Your task to perform on an android device: turn off javascript in the chrome app Image 0: 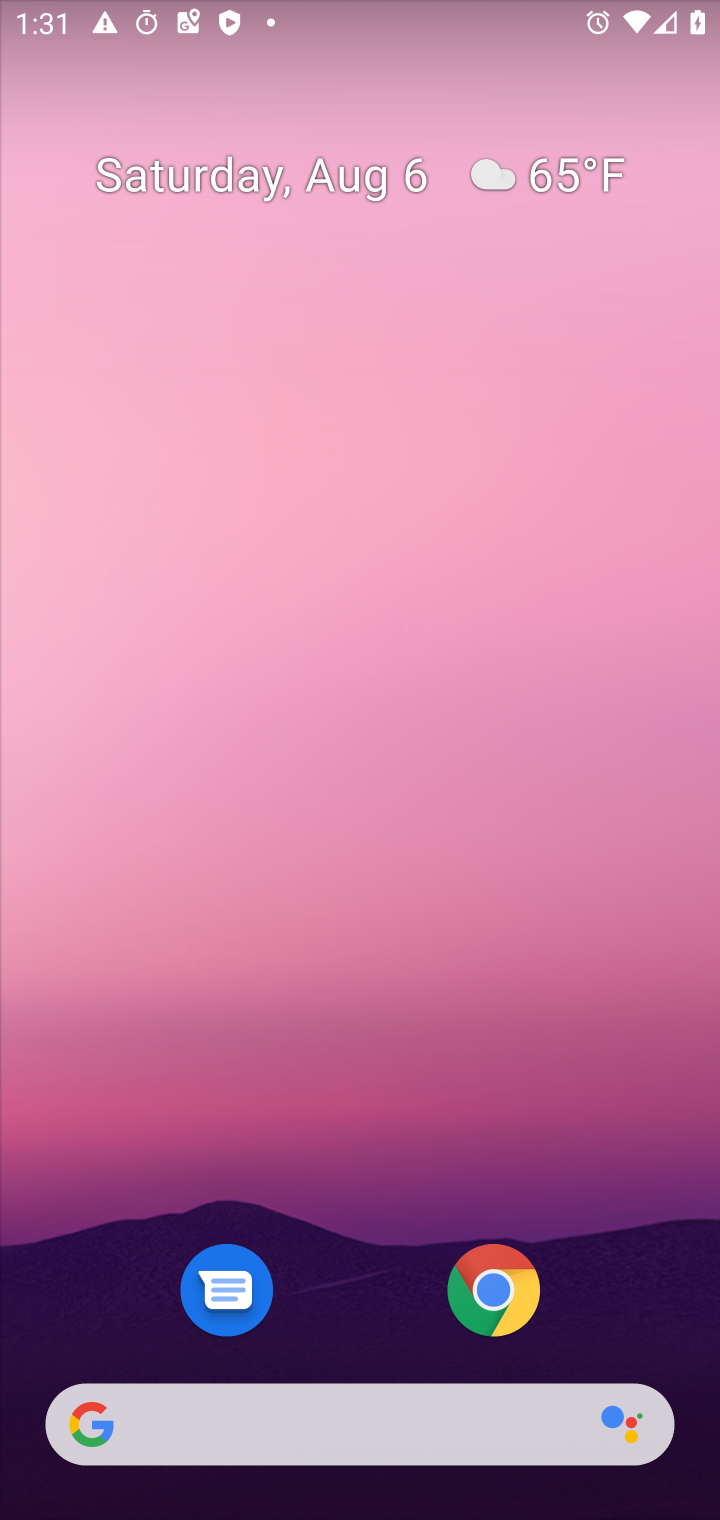
Step 0: press home button
Your task to perform on an android device: turn off javascript in the chrome app Image 1: 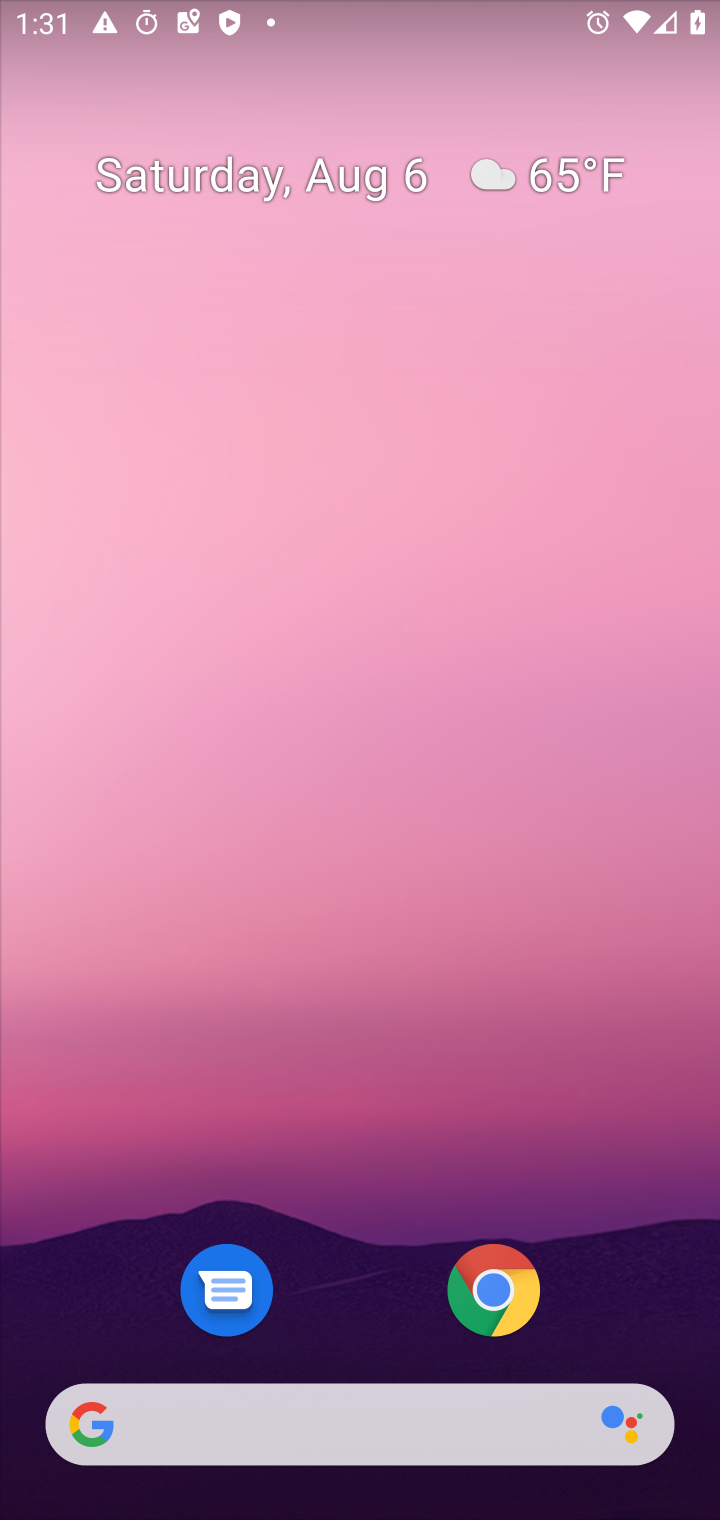
Step 1: press home button
Your task to perform on an android device: turn off javascript in the chrome app Image 2: 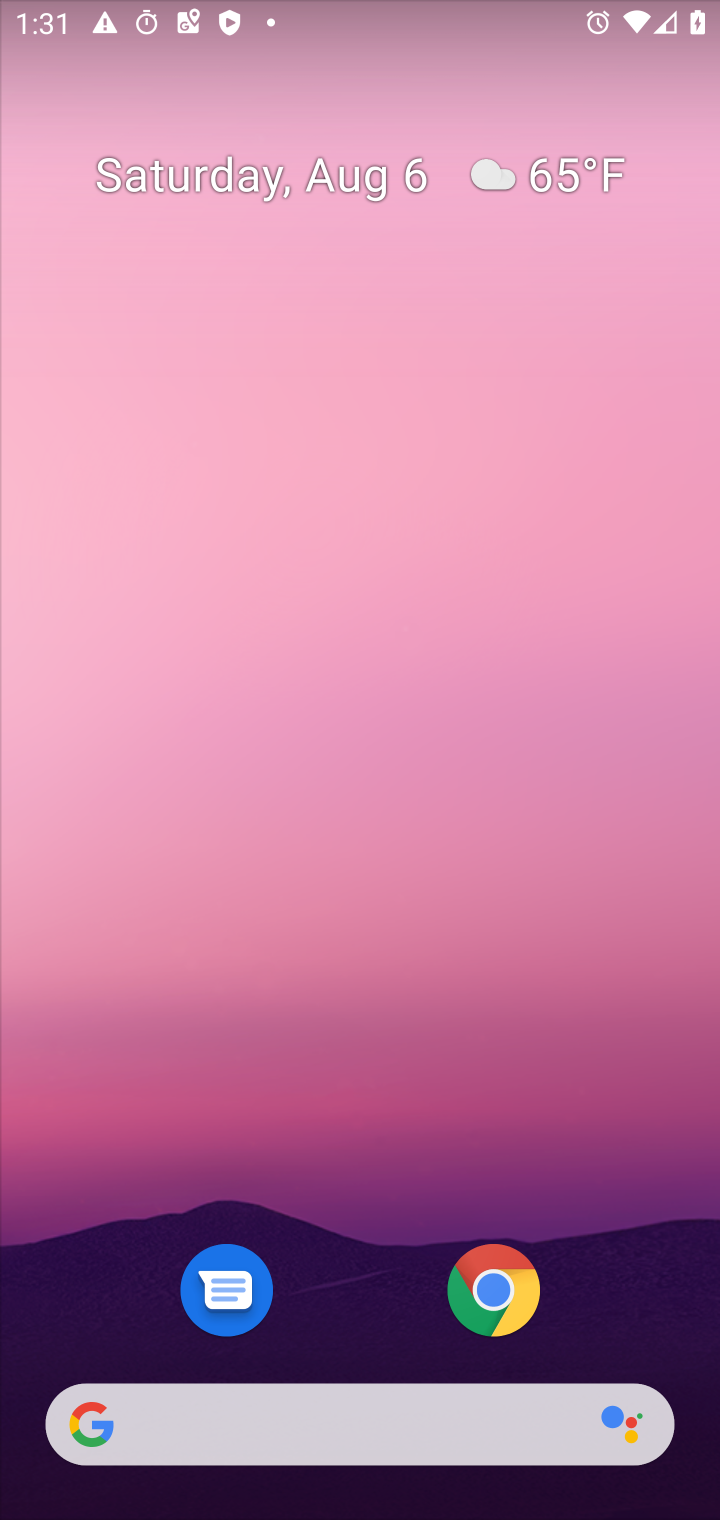
Step 2: click (495, 1276)
Your task to perform on an android device: turn off javascript in the chrome app Image 3: 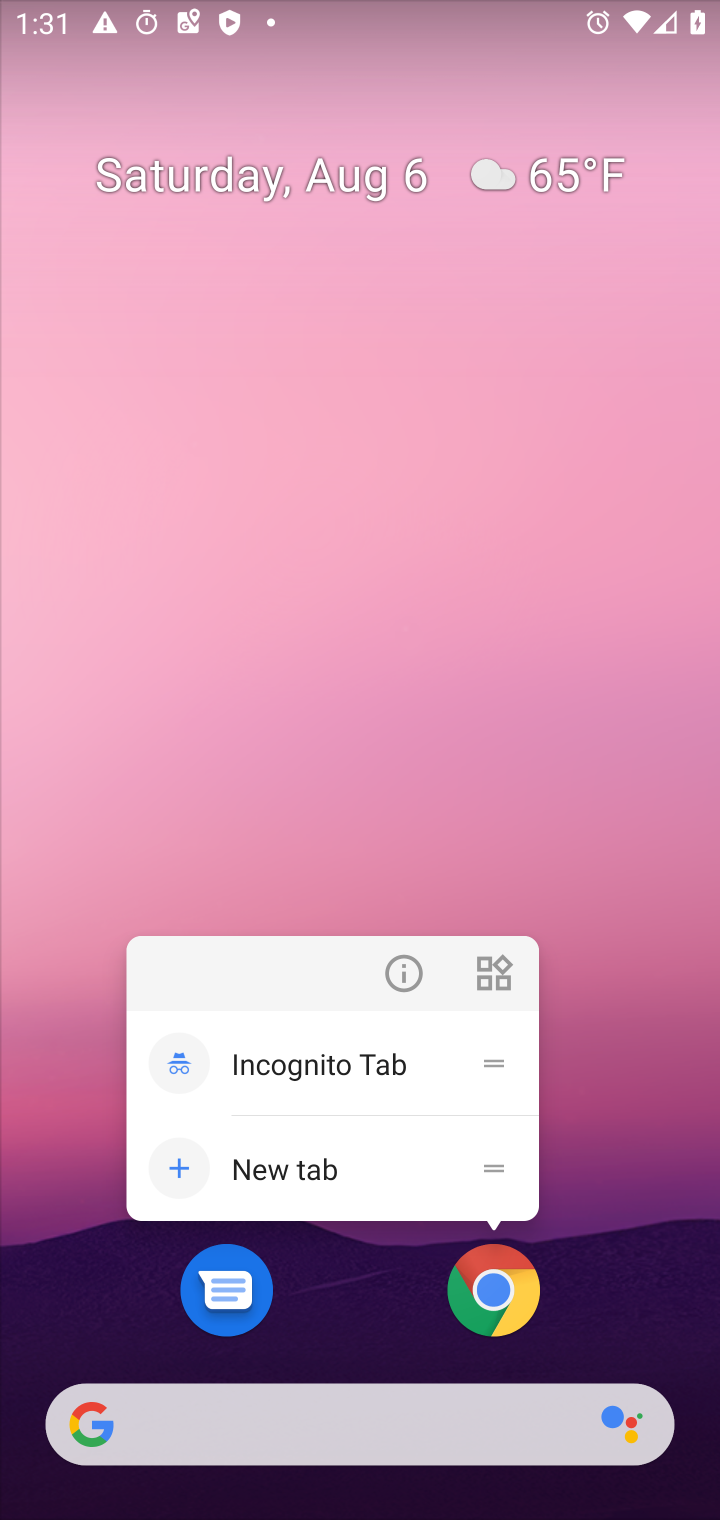
Step 3: click (500, 1285)
Your task to perform on an android device: turn off javascript in the chrome app Image 4: 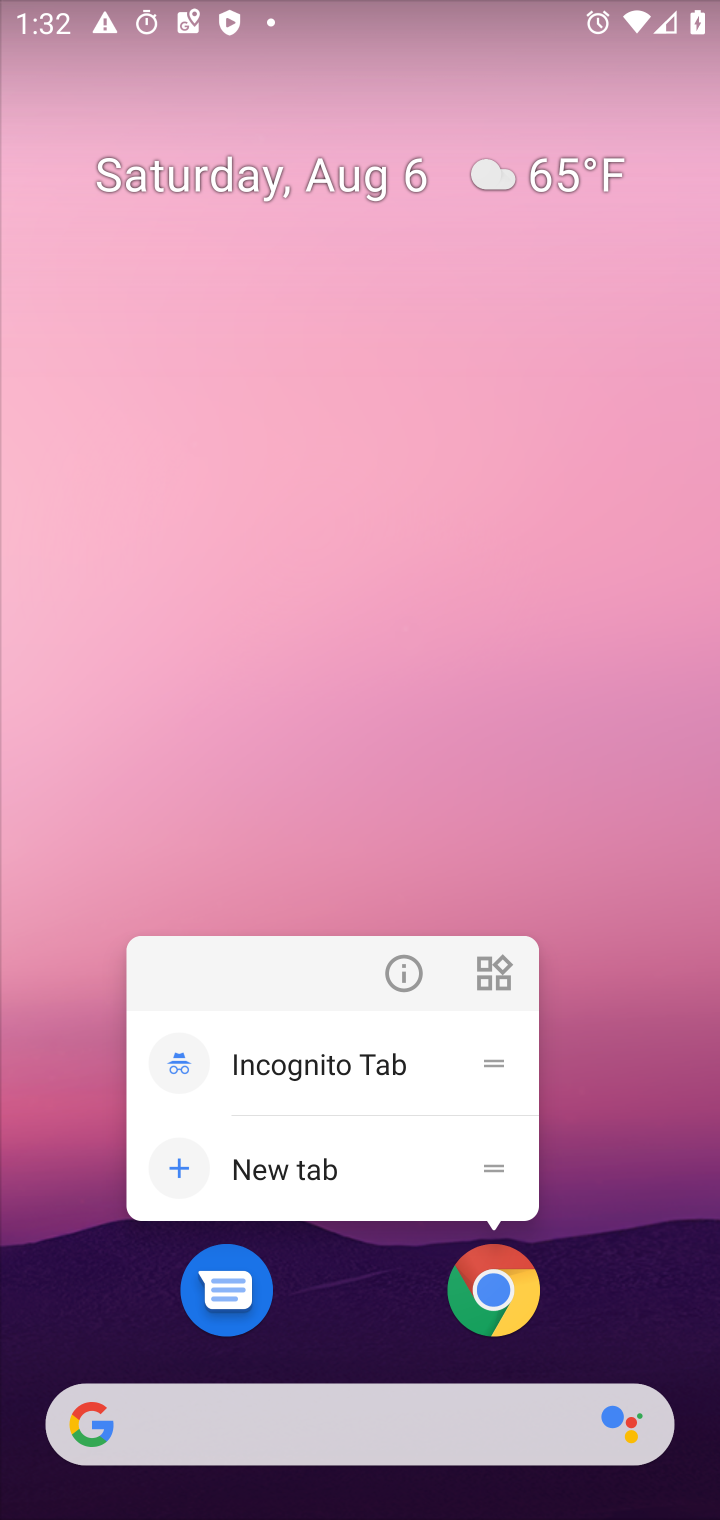
Step 4: click (479, 1265)
Your task to perform on an android device: turn off javascript in the chrome app Image 5: 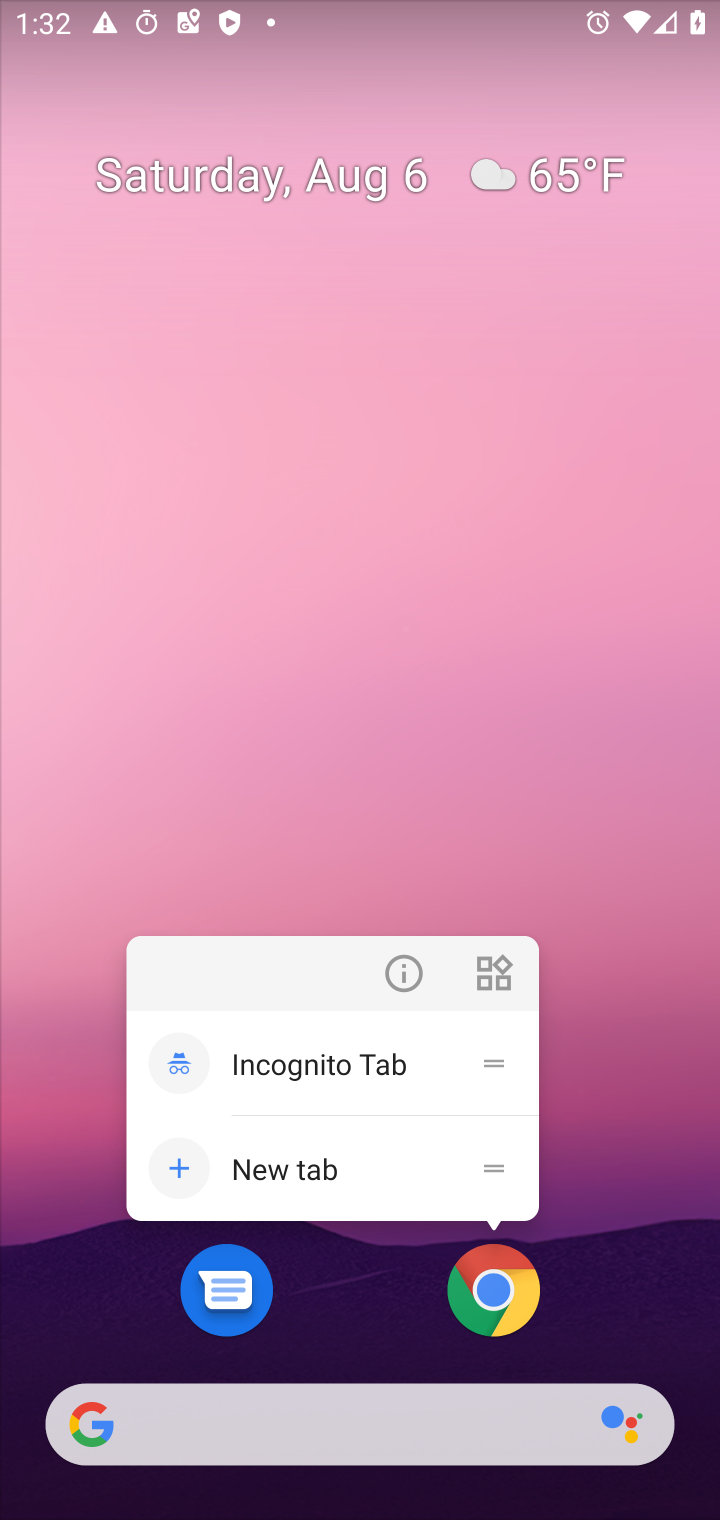
Step 5: click (483, 1277)
Your task to perform on an android device: turn off javascript in the chrome app Image 6: 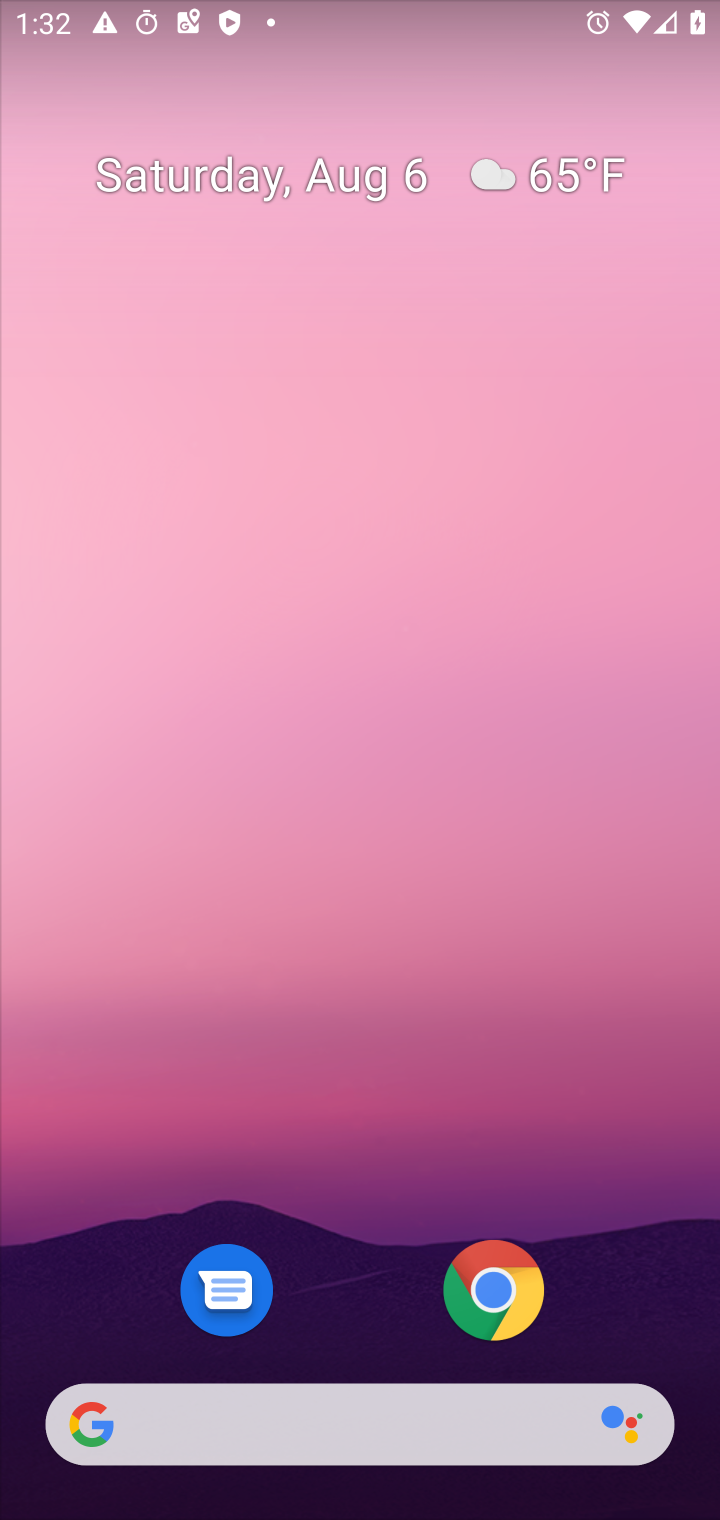
Step 6: drag from (564, 1338) to (640, 133)
Your task to perform on an android device: turn off javascript in the chrome app Image 7: 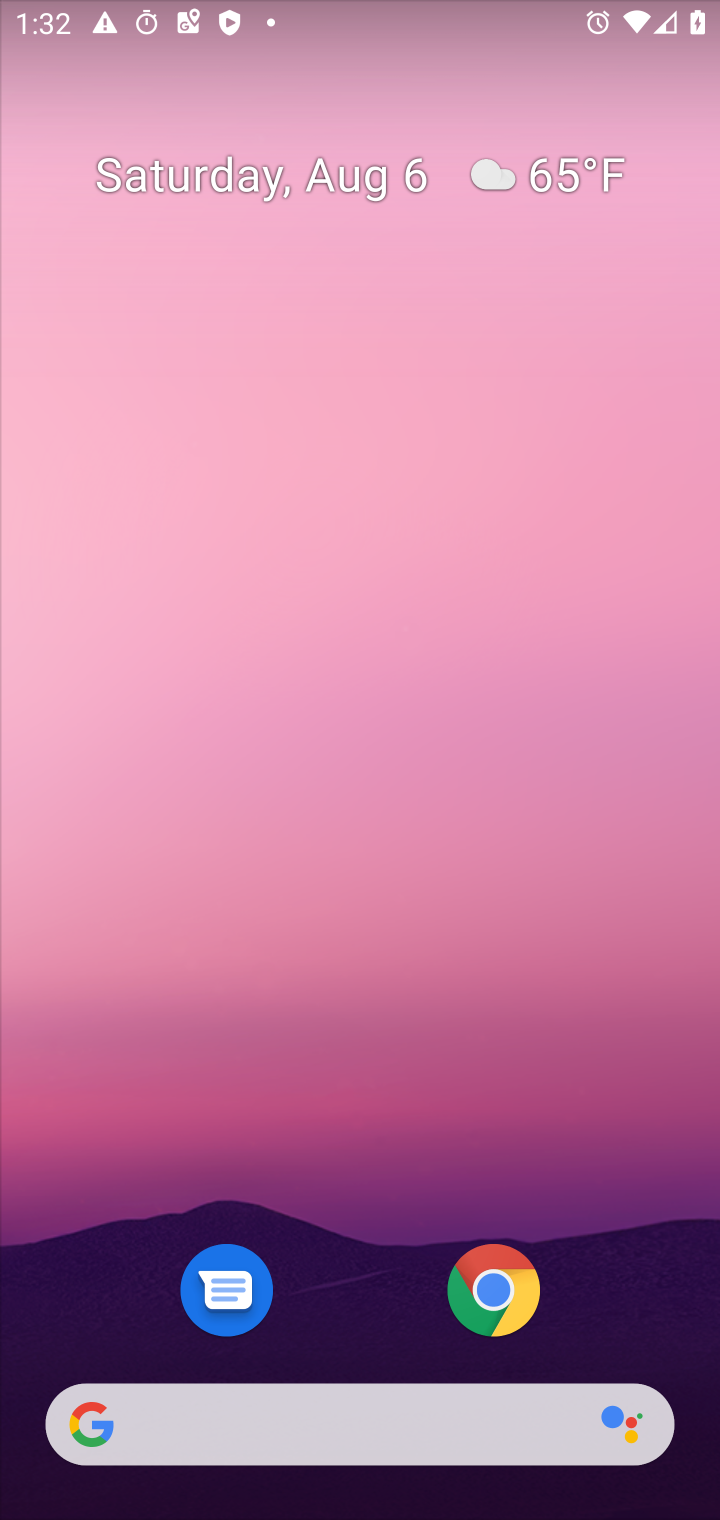
Step 7: drag from (621, 993) to (628, 167)
Your task to perform on an android device: turn off javascript in the chrome app Image 8: 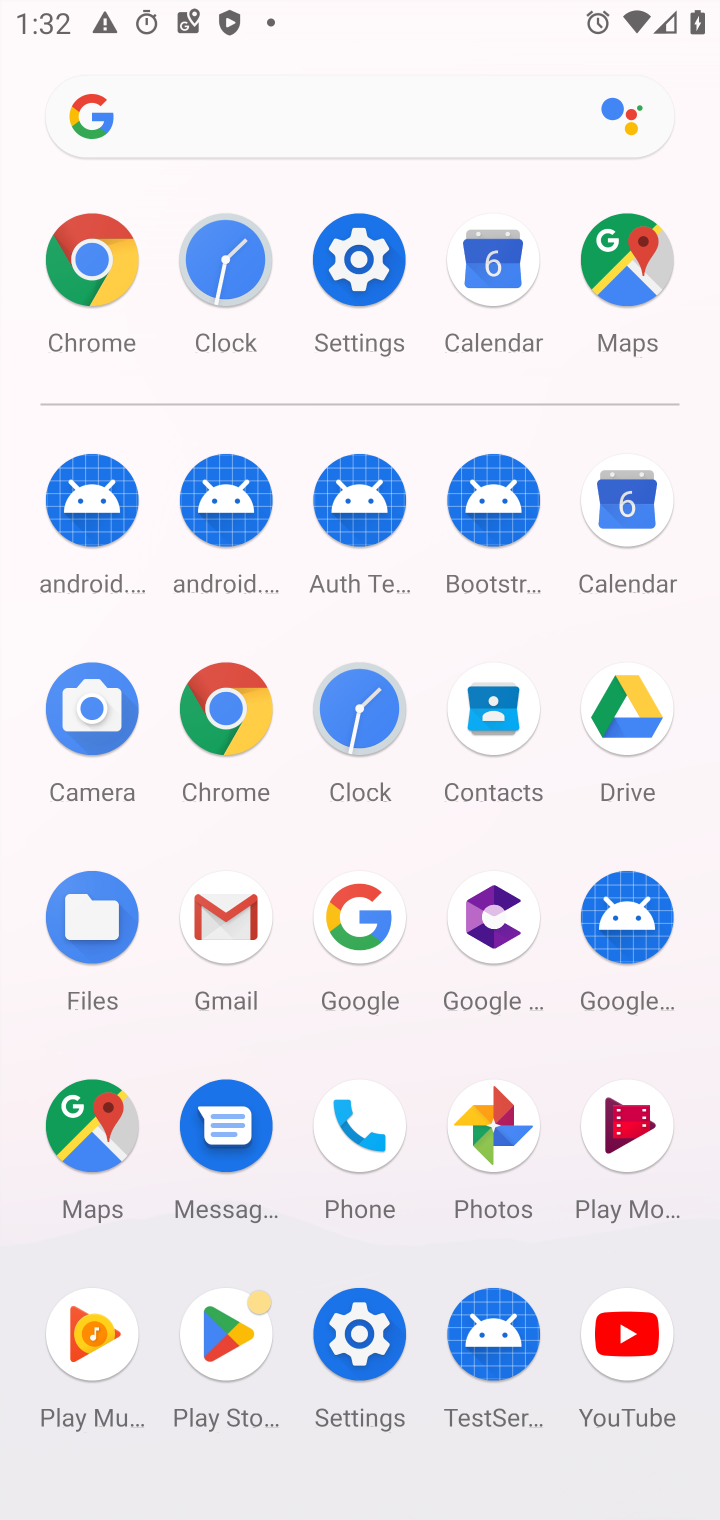
Step 8: click (83, 251)
Your task to perform on an android device: turn off javascript in the chrome app Image 9: 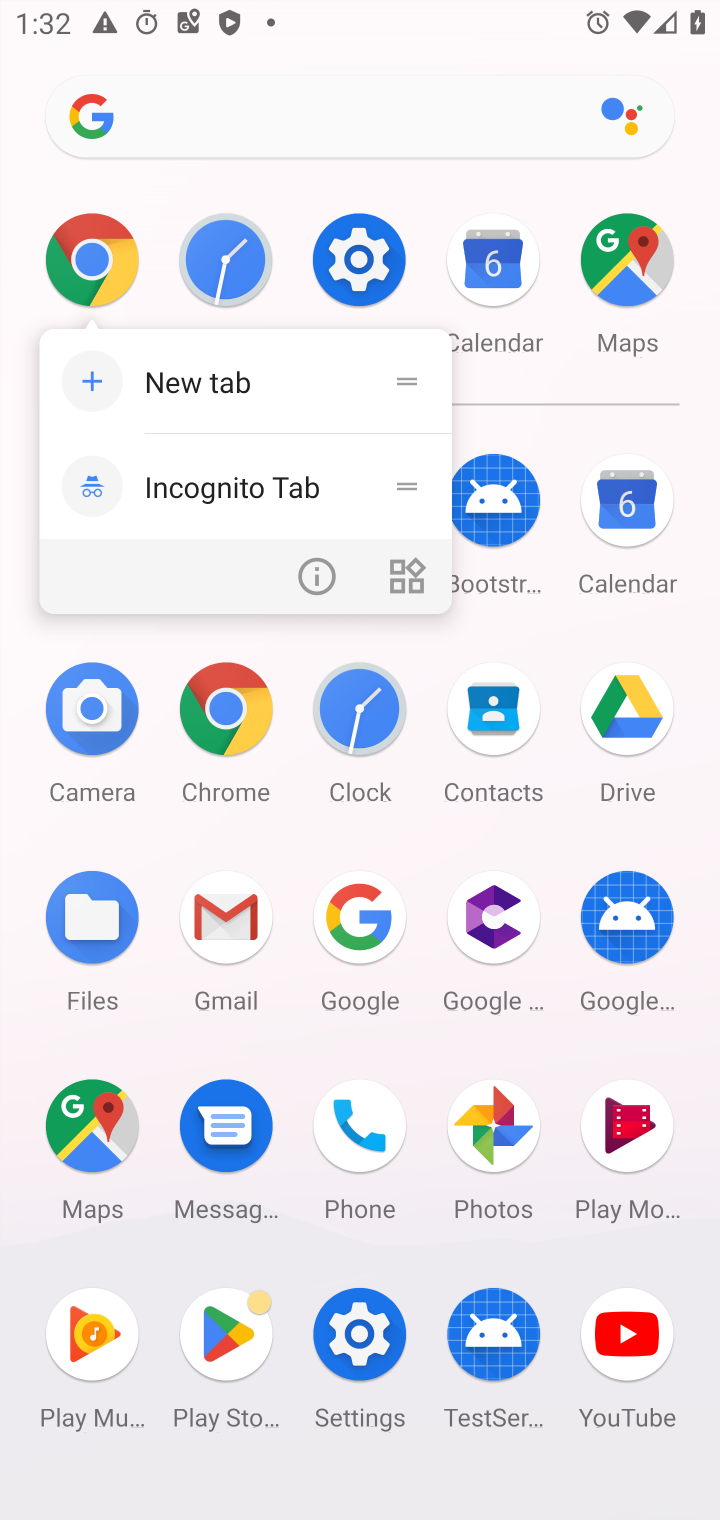
Step 9: click (92, 256)
Your task to perform on an android device: turn off javascript in the chrome app Image 10: 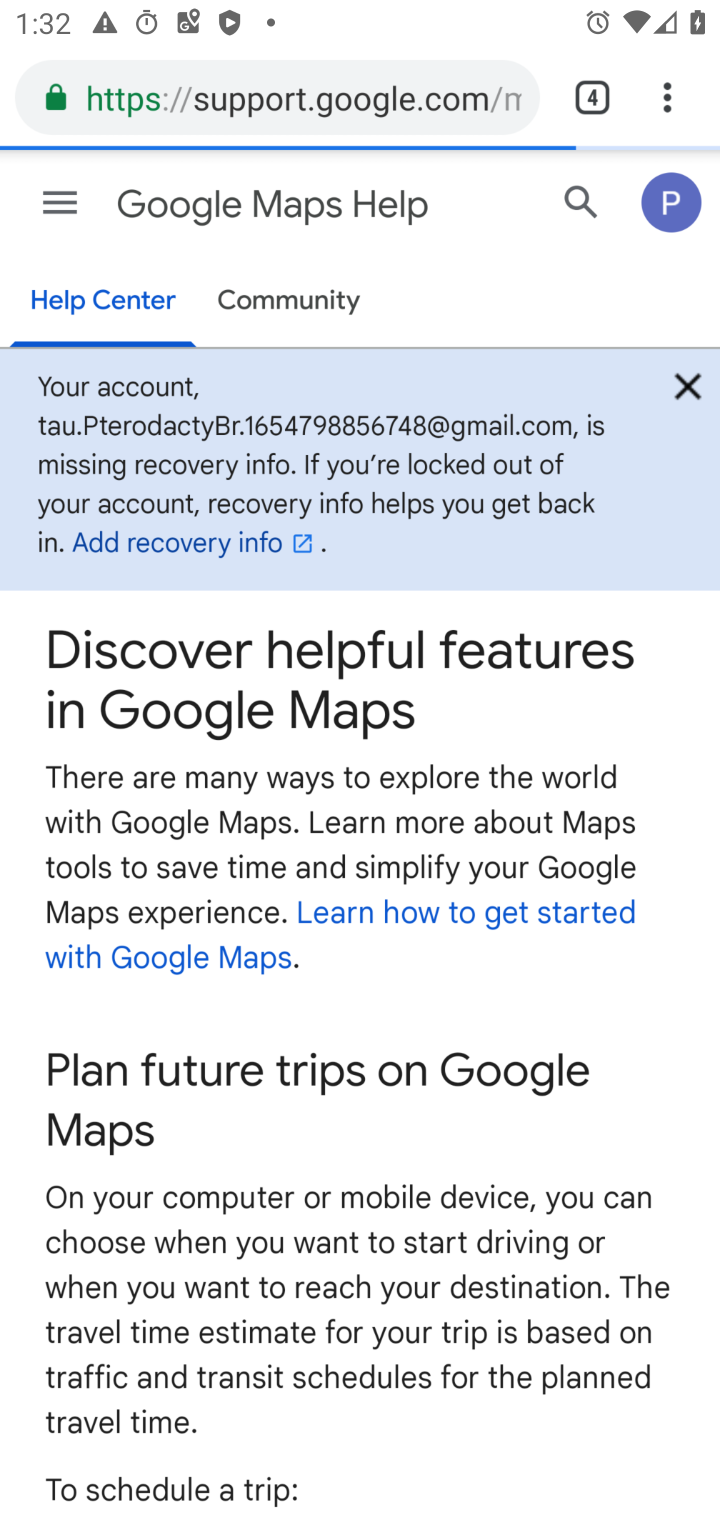
Step 10: click (235, 697)
Your task to perform on an android device: turn off javascript in the chrome app Image 11: 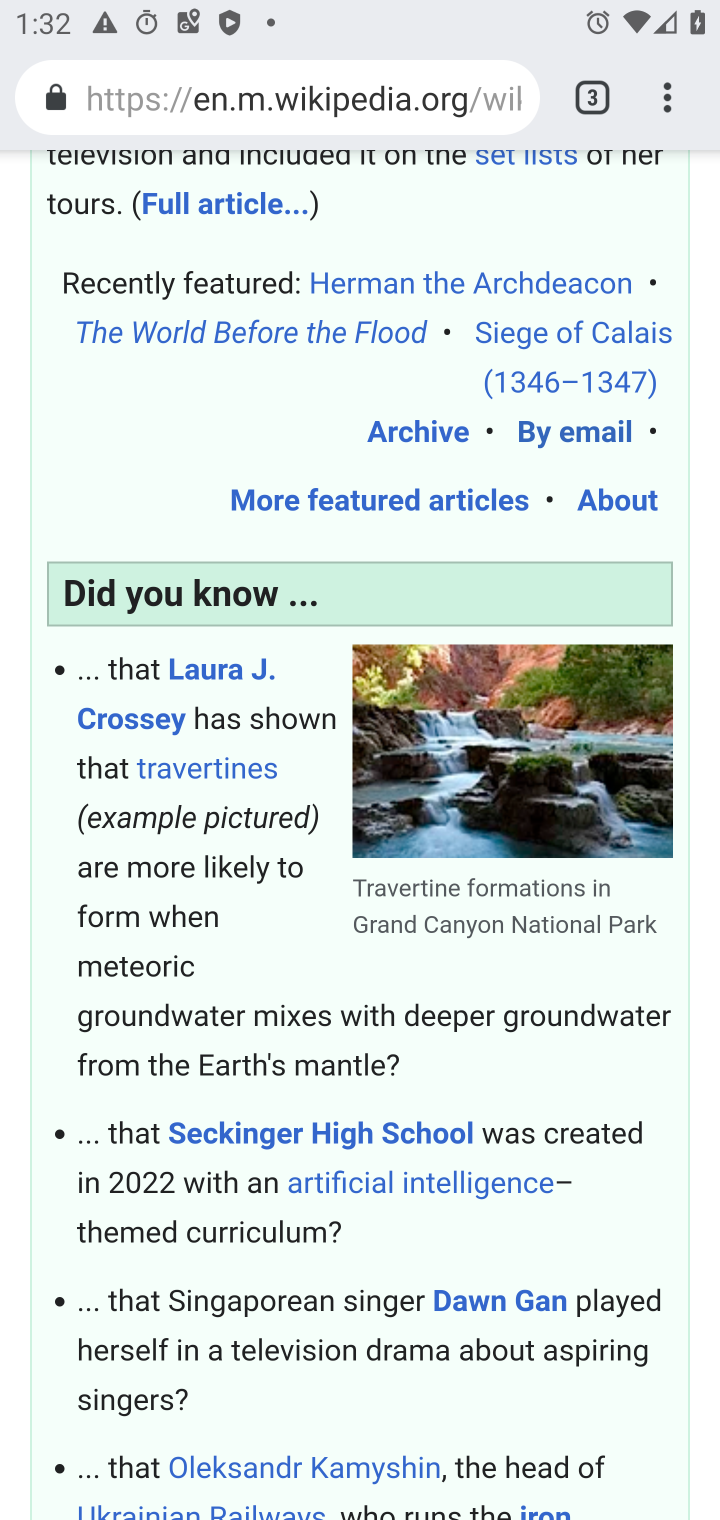
Step 11: click (584, 101)
Your task to perform on an android device: turn off javascript in the chrome app Image 12: 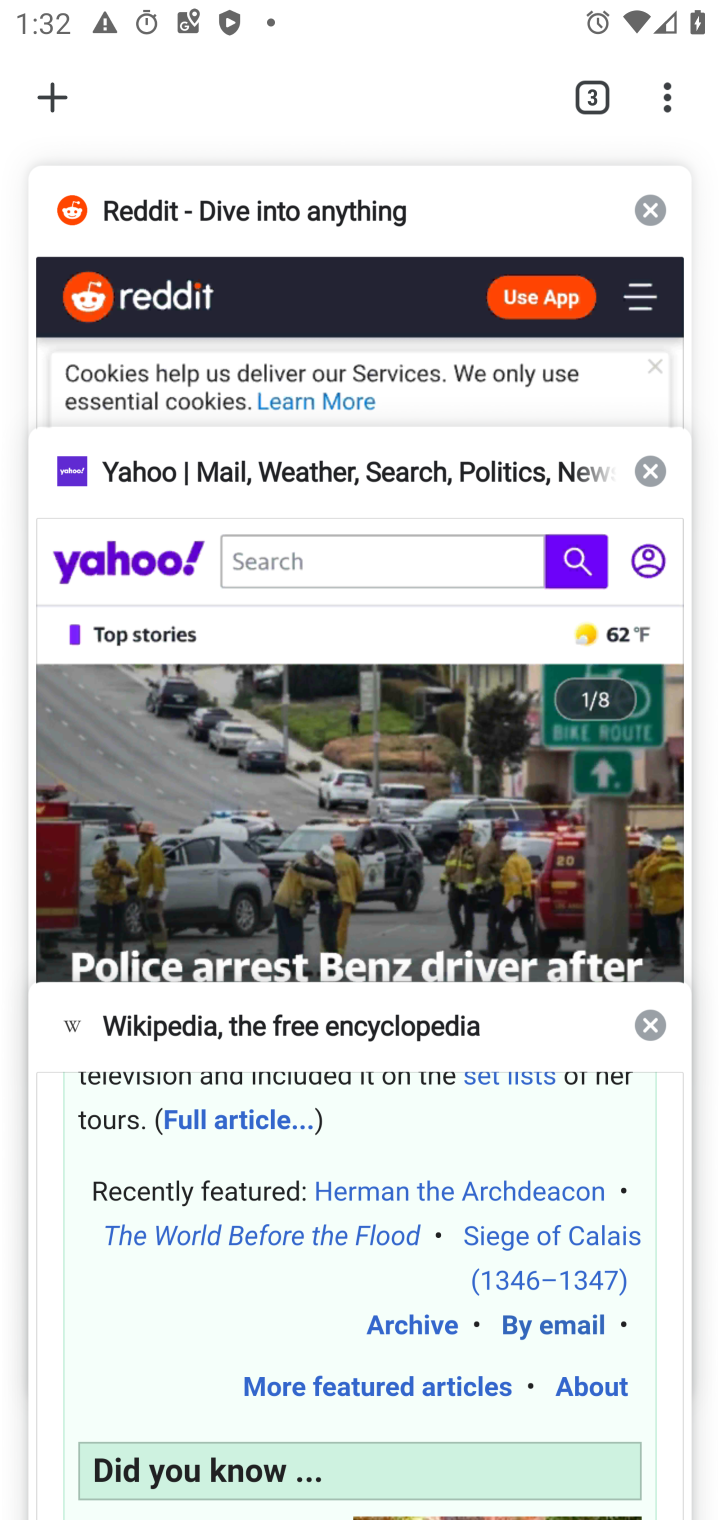
Step 12: click (57, 86)
Your task to perform on an android device: turn off javascript in the chrome app Image 13: 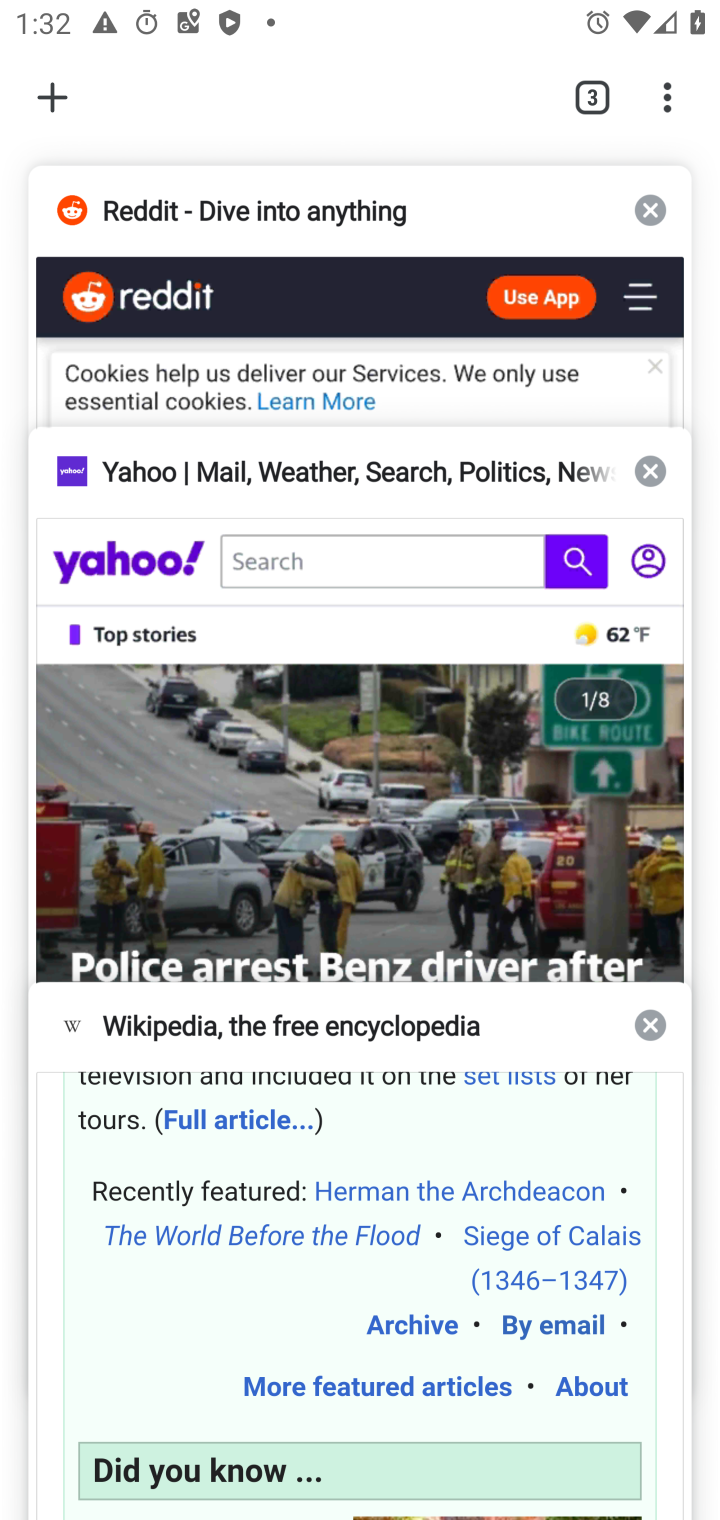
Step 13: click (667, 96)
Your task to perform on an android device: turn off javascript in the chrome app Image 14: 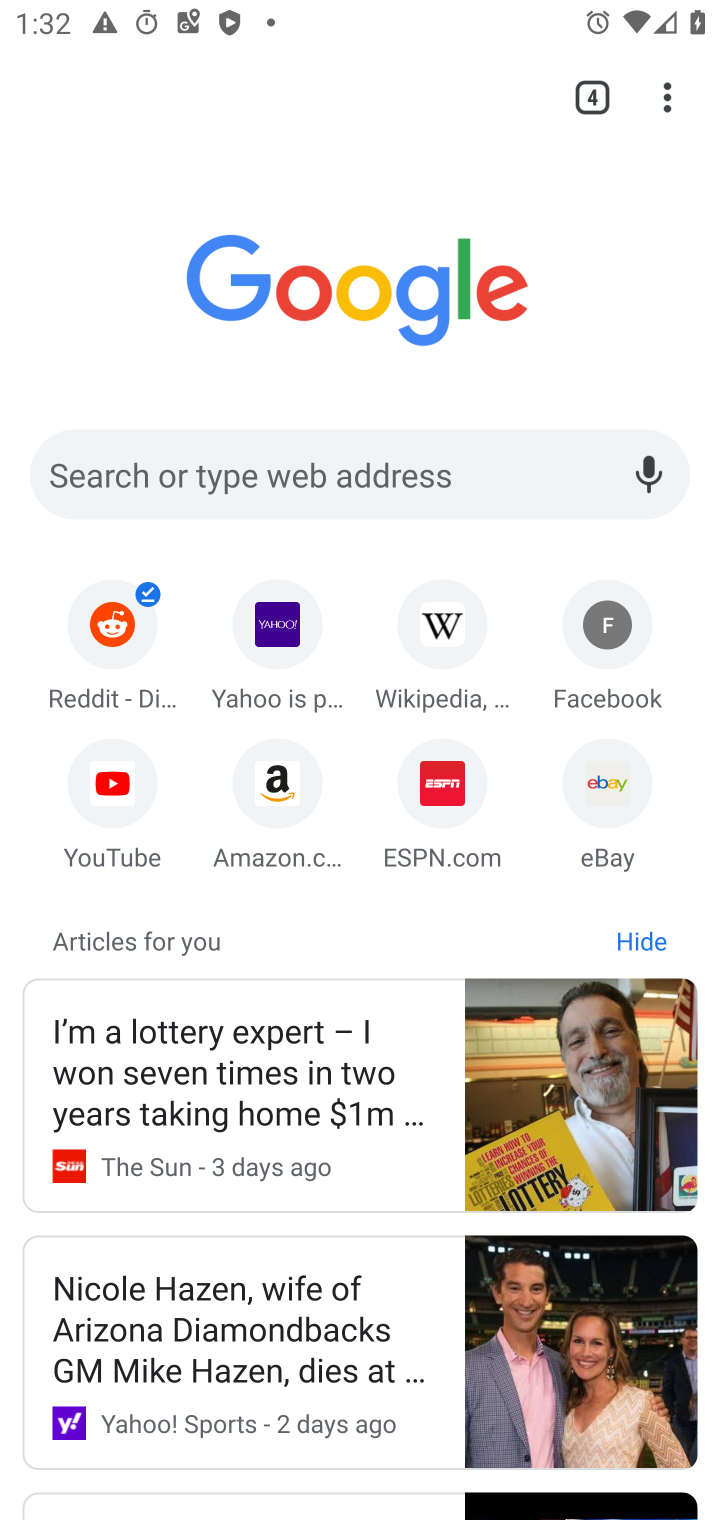
Step 14: click (673, 92)
Your task to perform on an android device: turn off javascript in the chrome app Image 15: 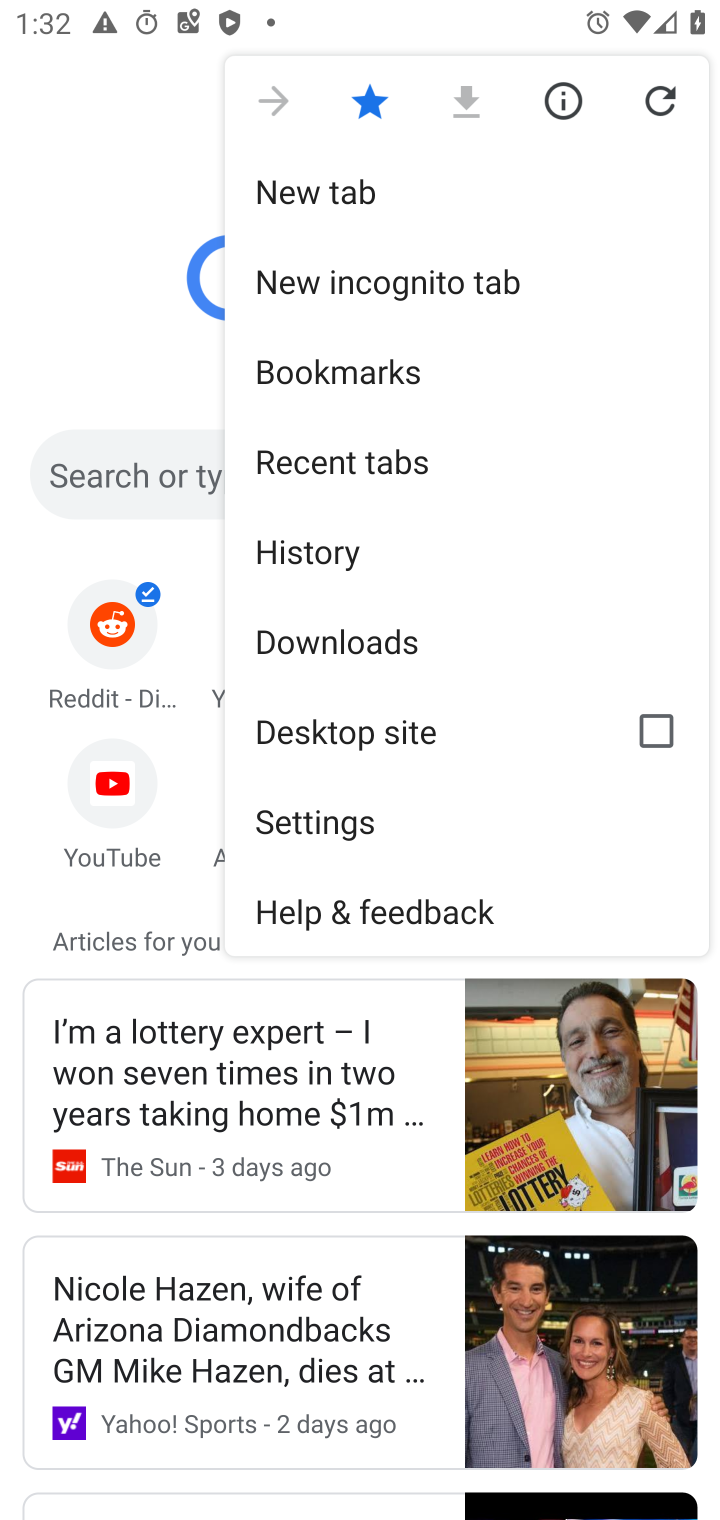
Step 15: click (418, 818)
Your task to perform on an android device: turn off javascript in the chrome app Image 16: 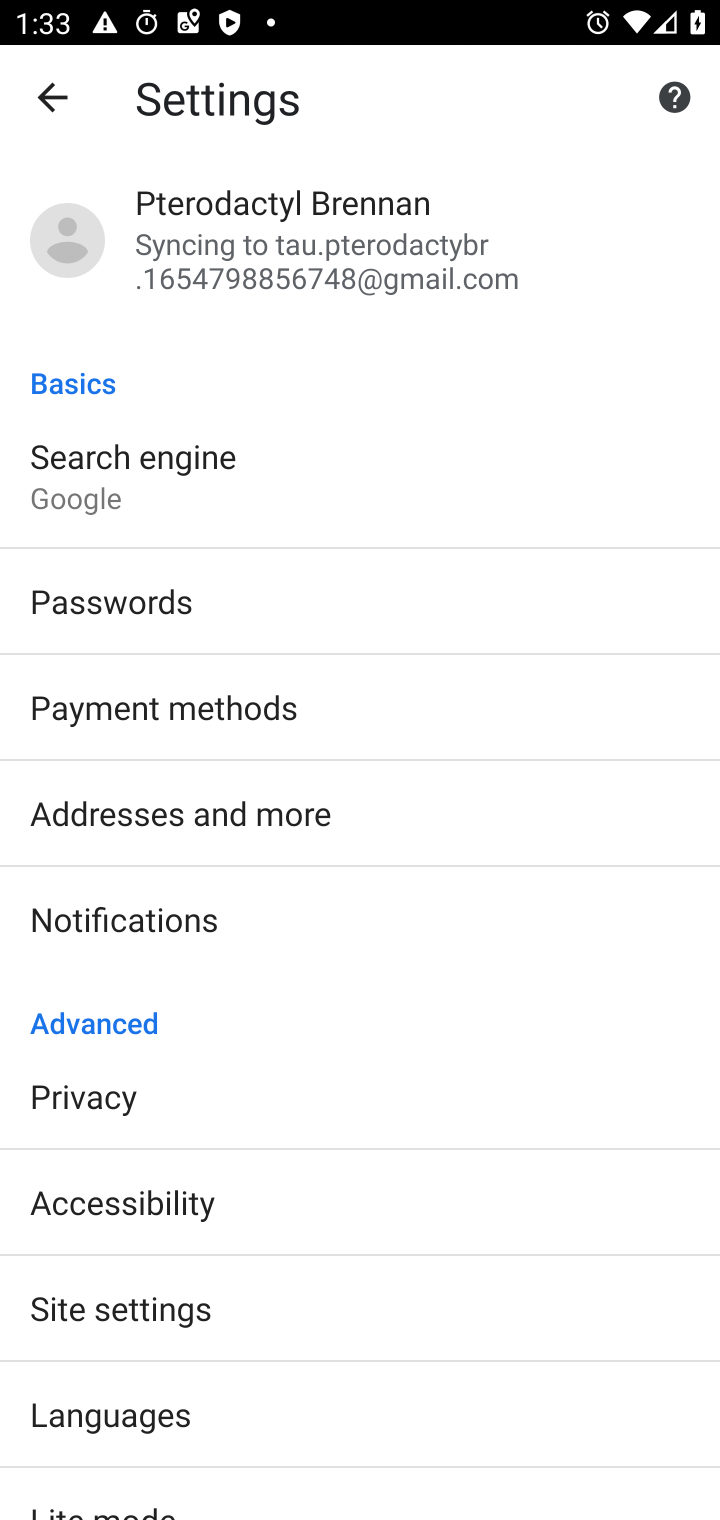
Step 16: click (230, 1296)
Your task to perform on an android device: turn off javascript in the chrome app Image 17: 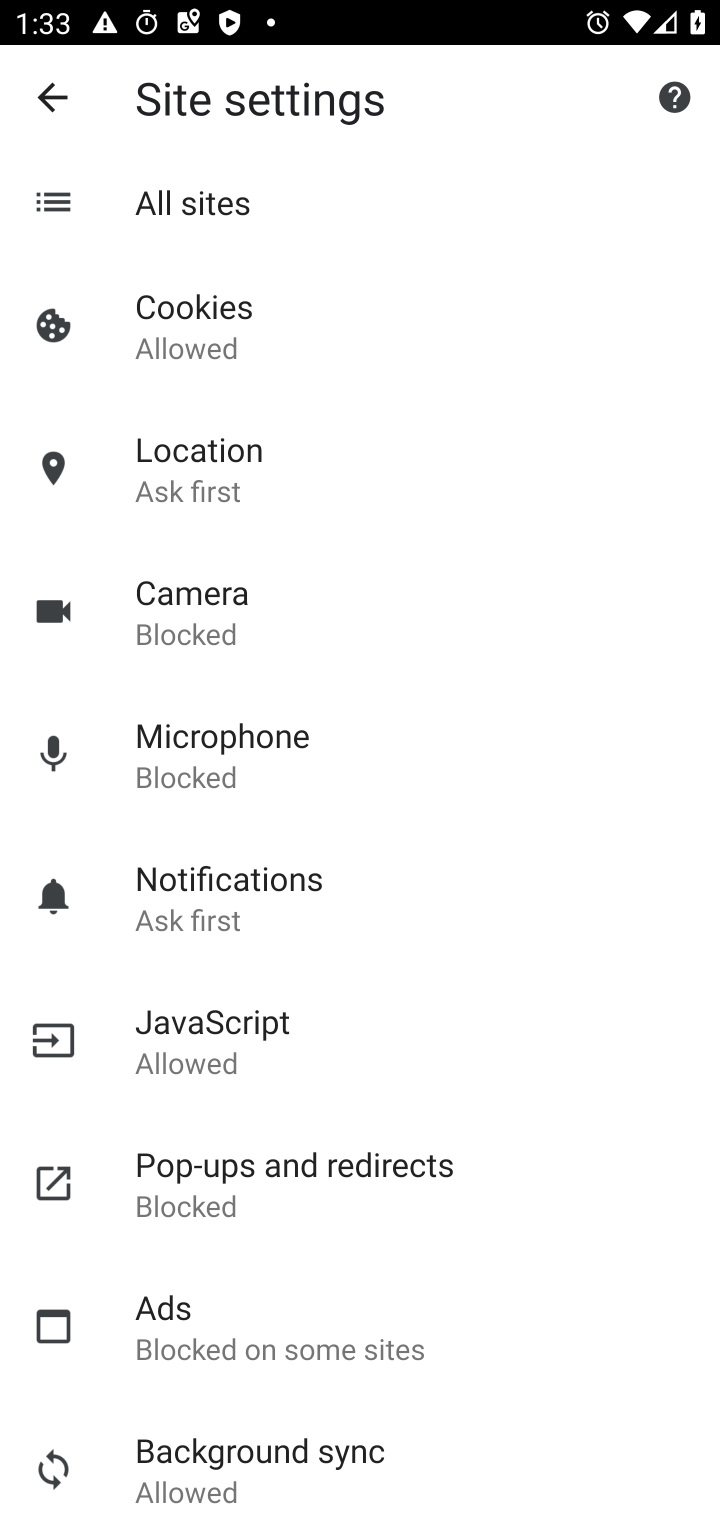
Step 17: click (269, 1025)
Your task to perform on an android device: turn off javascript in the chrome app Image 18: 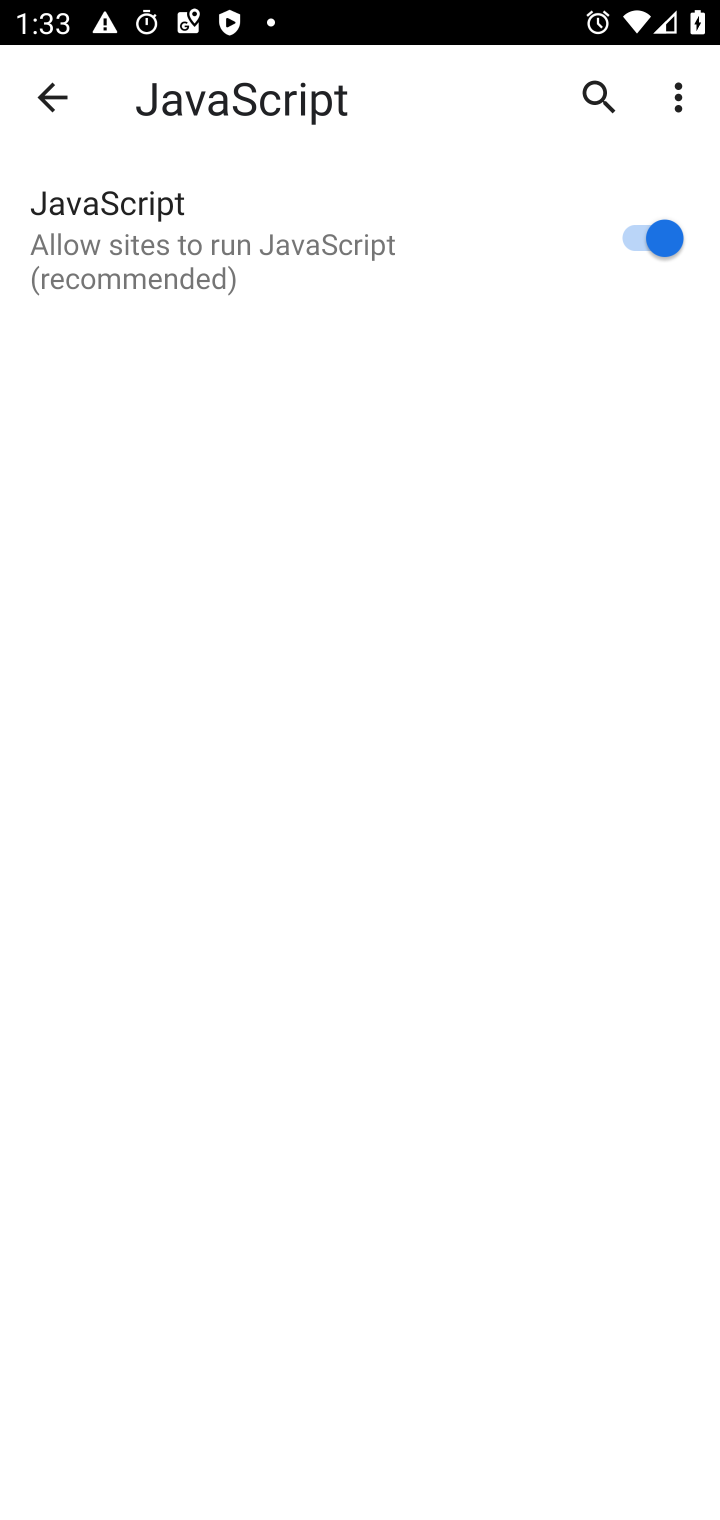
Step 18: click (633, 227)
Your task to perform on an android device: turn off javascript in the chrome app Image 19: 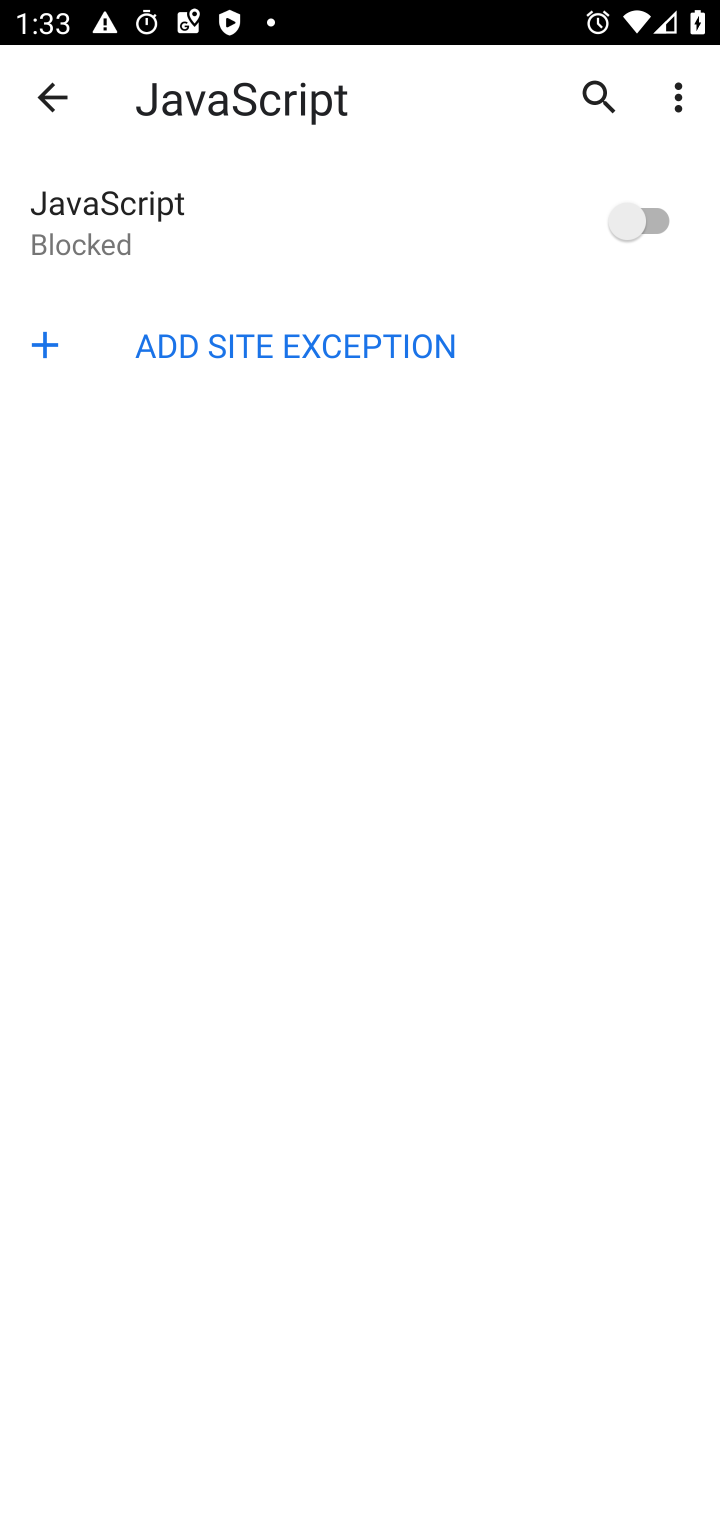
Step 19: task complete